Your task to perform on an android device: Open internet settings Image 0: 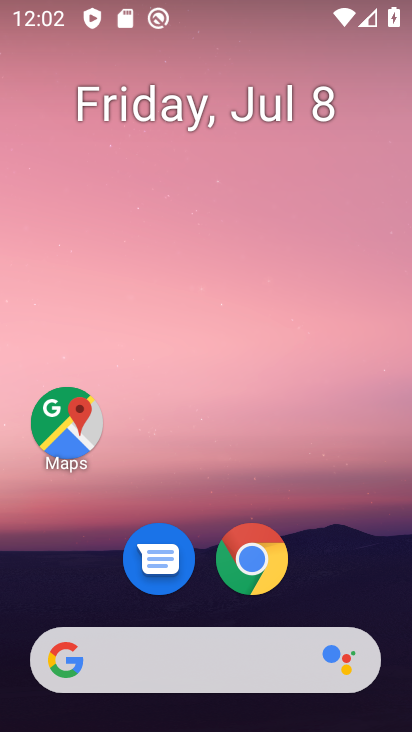
Step 0: drag from (232, 619) to (393, 202)
Your task to perform on an android device: Open internet settings Image 1: 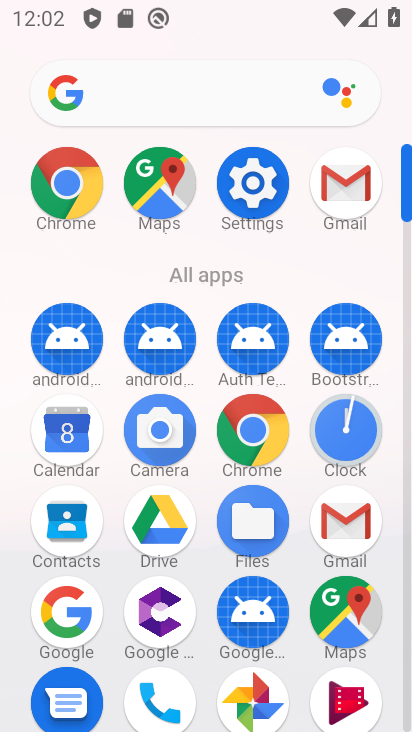
Step 1: click (252, 174)
Your task to perform on an android device: Open internet settings Image 2: 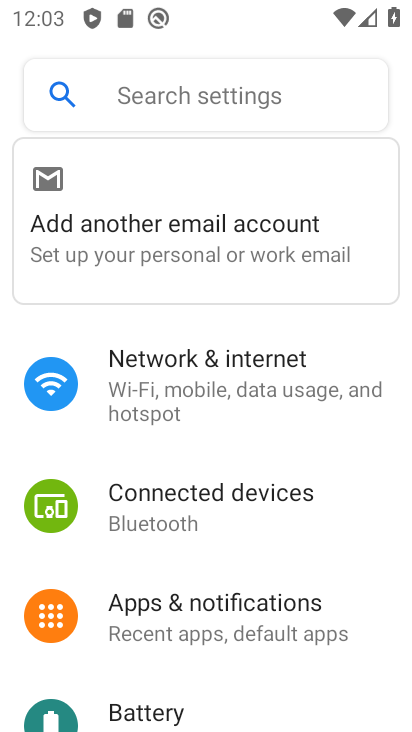
Step 2: click (171, 389)
Your task to perform on an android device: Open internet settings Image 3: 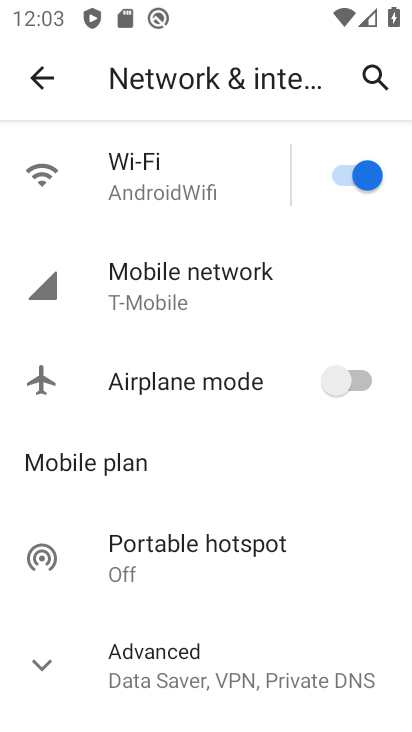
Step 3: click (154, 303)
Your task to perform on an android device: Open internet settings Image 4: 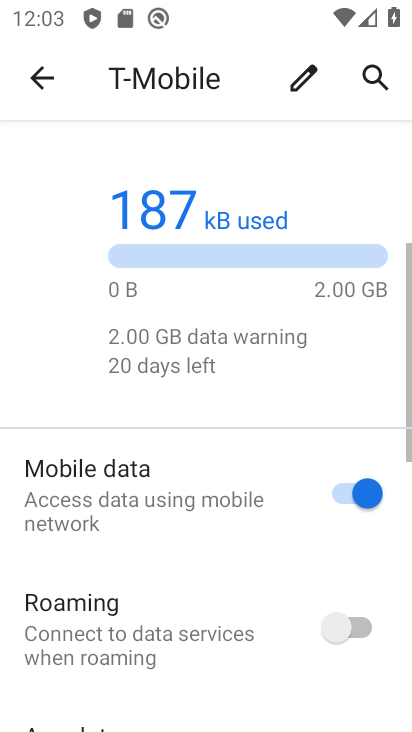
Step 4: task complete